Your task to perform on an android device: visit the assistant section in the google photos Image 0: 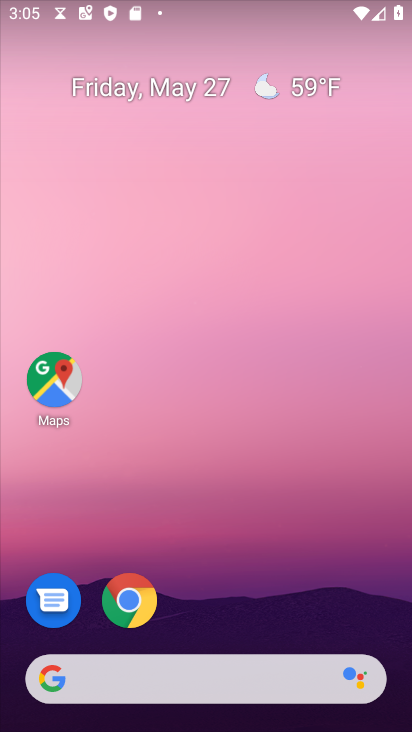
Step 0: drag from (249, 614) to (248, 0)
Your task to perform on an android device: visit the assistant section in the google photos Image 1: 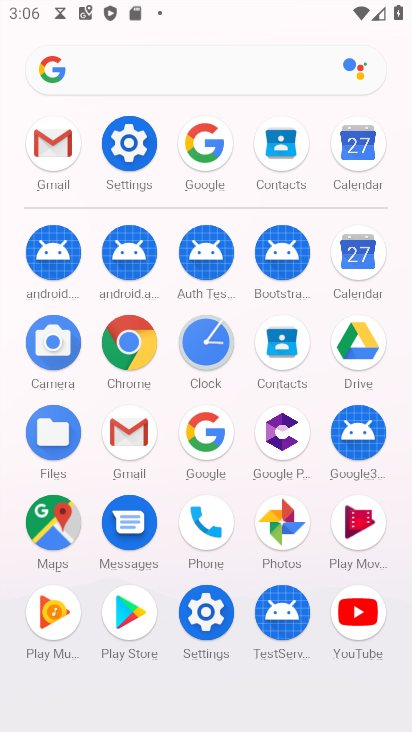
Step 1: click (282, 519)
Your task to perform on an android device: visit the assistant section in the google photos Image 2: 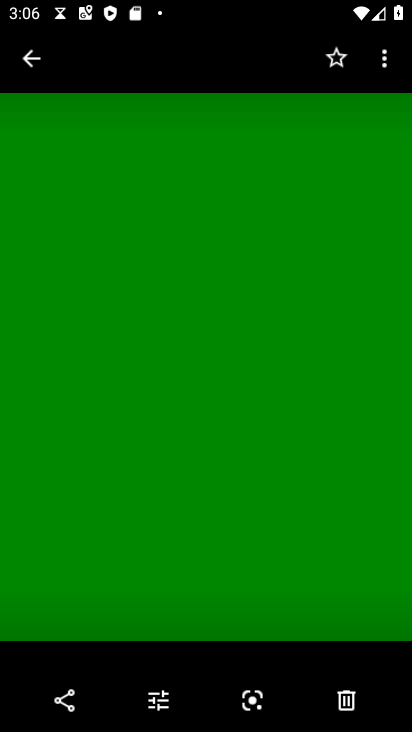
Step 2: press back button
Your task to perform on an android device: visit the assistant section in the google photos Image 3: 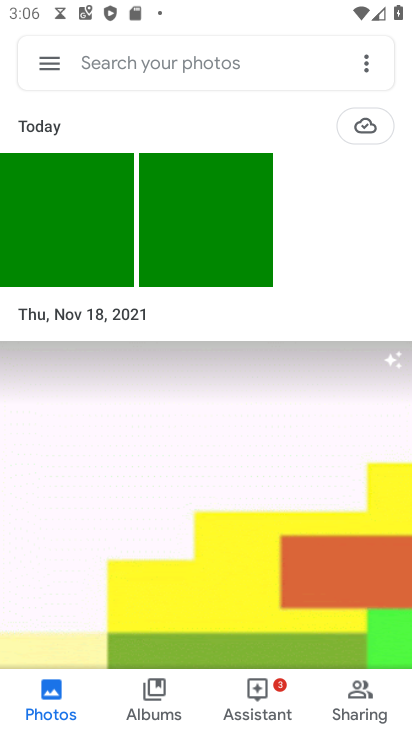
Step 3: click (263, 689)
Your task to perform on an android device: visit the assistant section in the google photos Image 4: 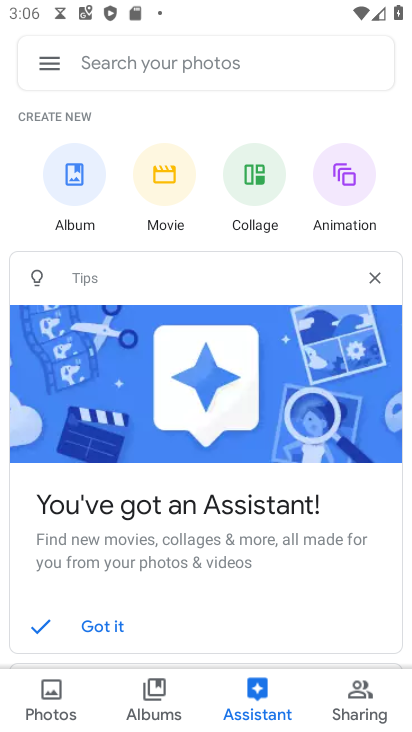
Step 4: task complete